Your task to perform on an android device: open a new tab in the chrome app Image 0: 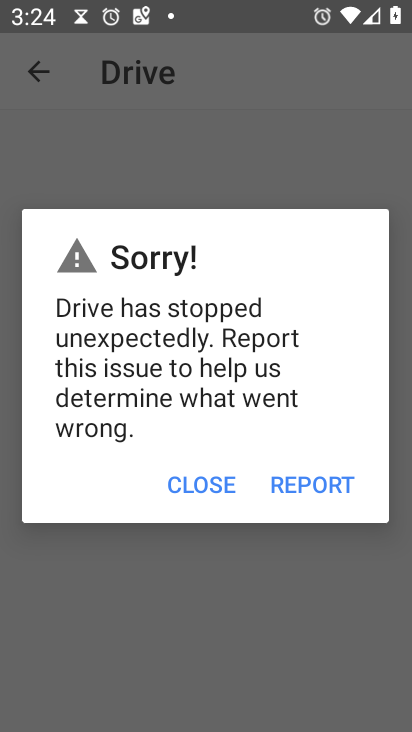
Step 0: press home button
Your task to perform on an android device: open a new tab in the chrome app Image 1: 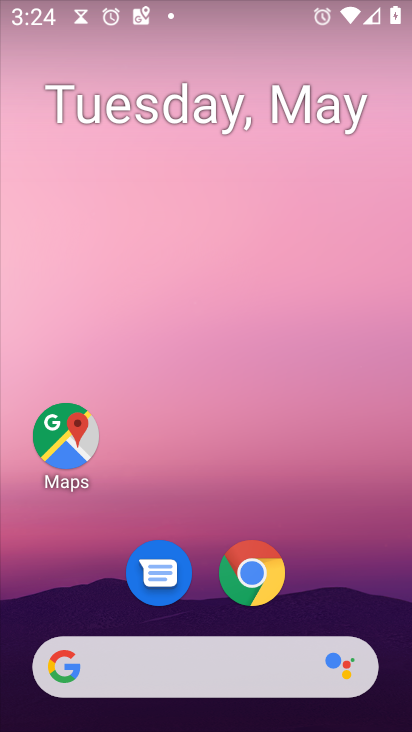
Step 1: drag from (299, 427) to (238, 17)
Your task to perform on an android device: open a new tab in the chrome app Image 2: 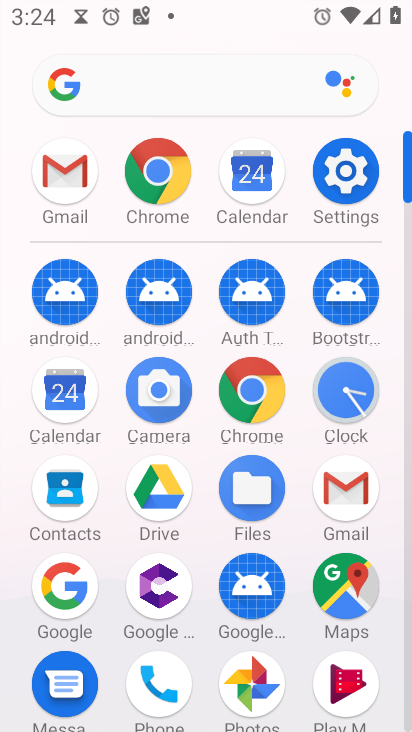
Step 2: drag from (10, 578) to (4, 211)
Your task to perform on an android device: open a new tab in the chrome app Image 3: 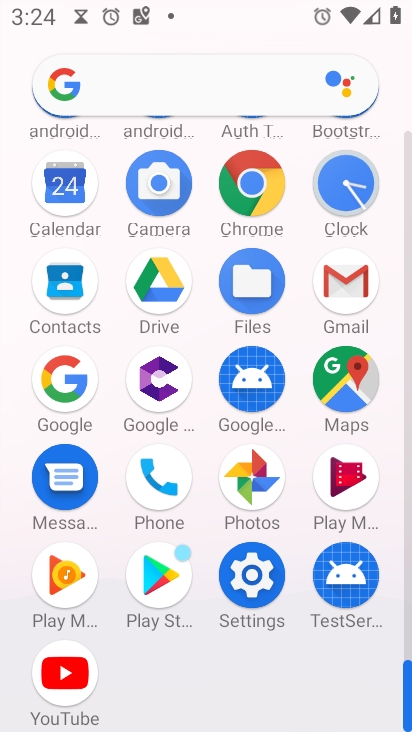
Step 3: click (251, 178)
Your task to perform on an android device: open a new tab in the chrome app Image 4: 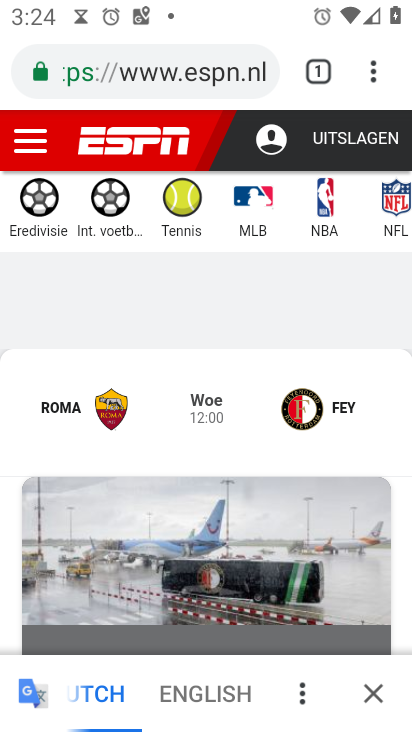
Step 4: task complete